Your task to perform on an android device: Open battery settings Image 0: 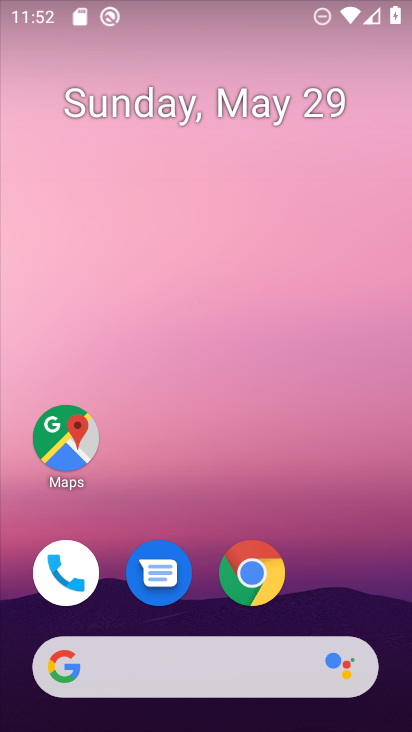
Step 0: drag from (373, 590) to (348, 173)
Your task to perform on an android device: Open battery settings Image 1: 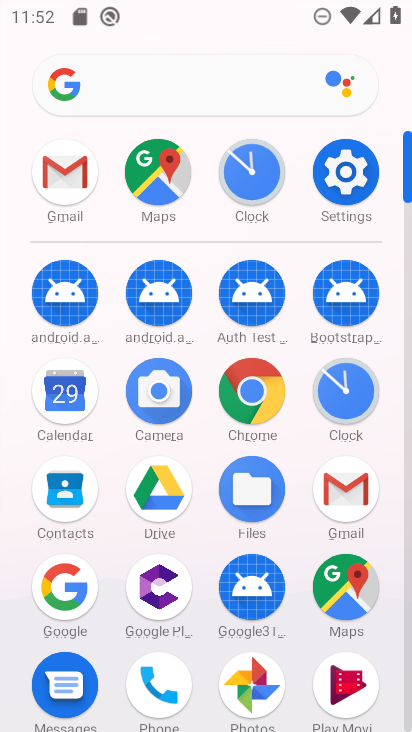
Step 1: click (341, 178)
Your task to perform on an android device: Open battery settings Image 2: 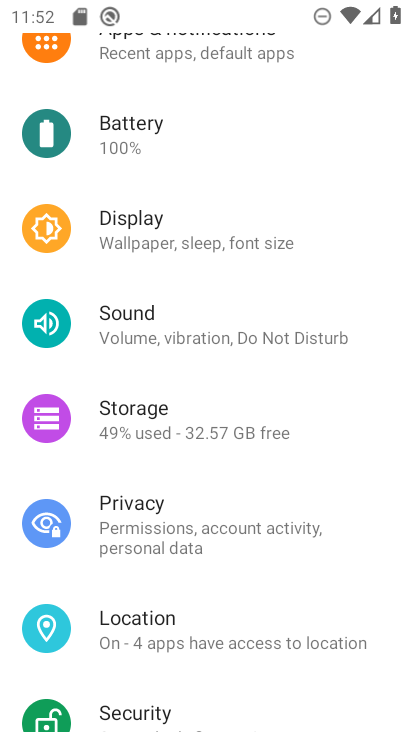
Step 2: click (168, 144)
Your task to perform on an android device: Open battery settings Image 3: 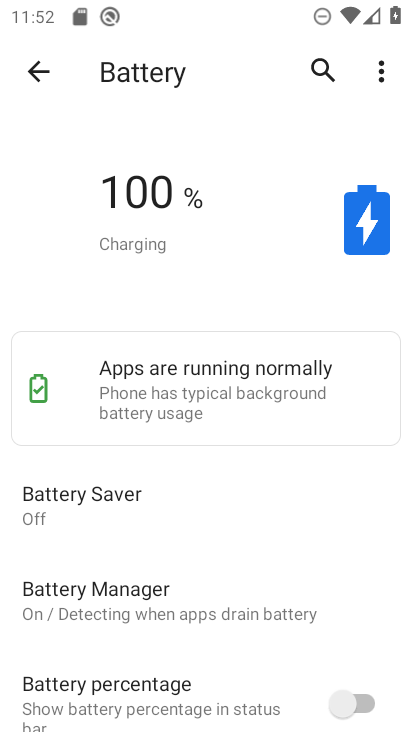
Step 3: task complete